Your task to perform on an android device: refresh tabs in the chrome app Image 0: 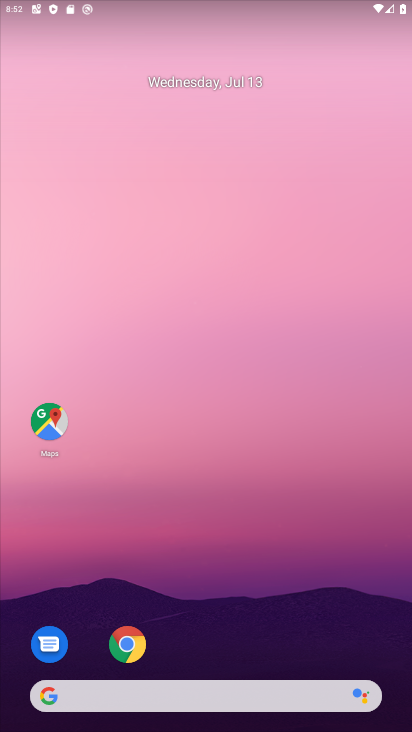
Step 0: click (127, 640)
Your task to perform on an android device: refresh tabs in the chrome app Image 1: 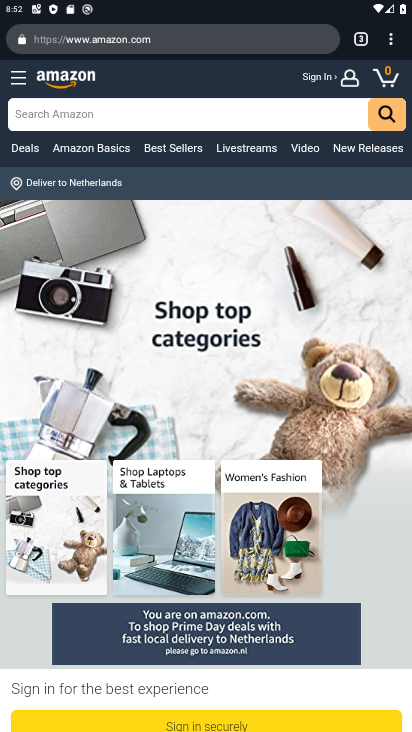
Step 1: click (127, 640)
Your task to perform on an android device: refresh tabs in the chrome app Image 2: 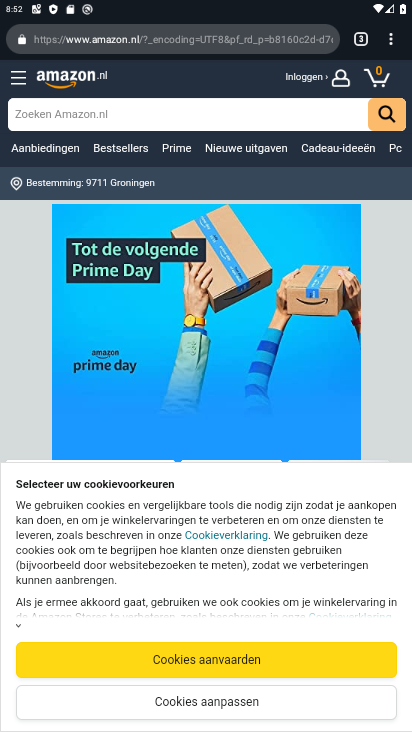
Step 2: click (394, 48)
Your task to perform on an android device: refresh tabs in the chrome app Image 3: 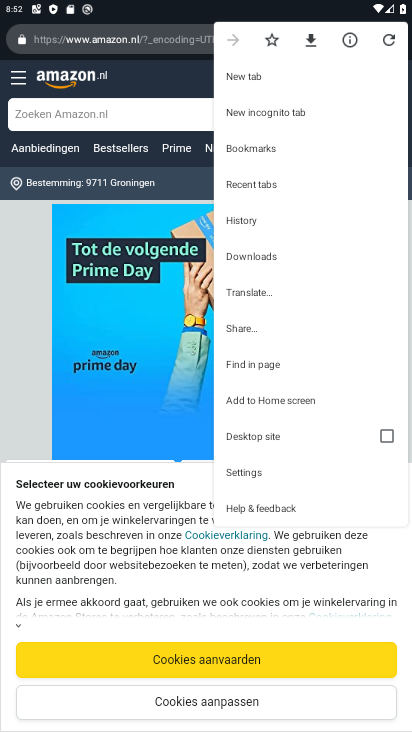
Step 3: click (389, 33)
Your task to perform on an android device: refresh tabs in the chrome app Image 4: 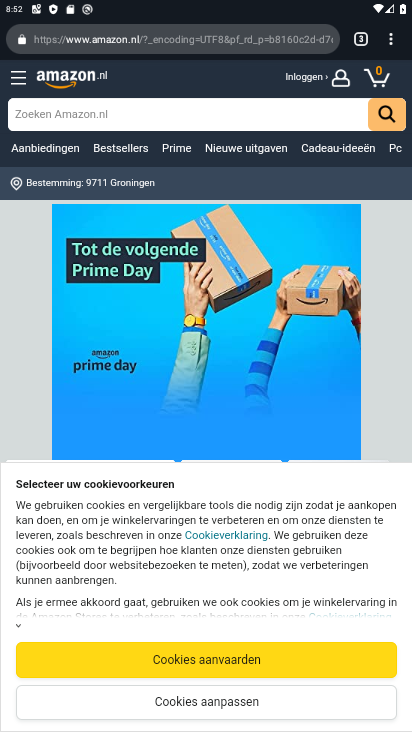
Step 4: task complete